Your task to perform on an android device: Open maps Image 0: 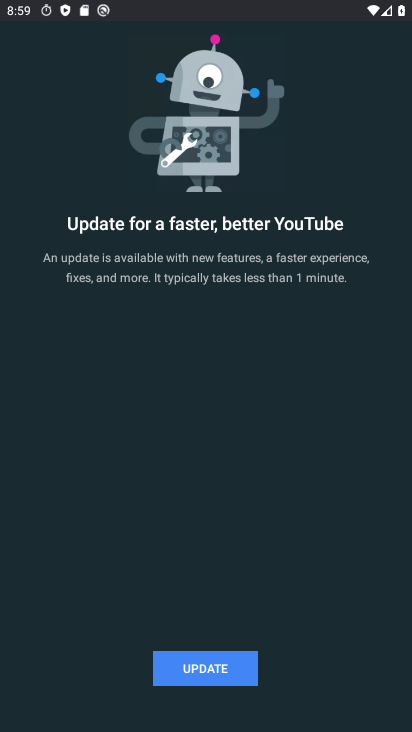
Step 0: press home button
Your task to perform on an android device: Open maps Image 1: 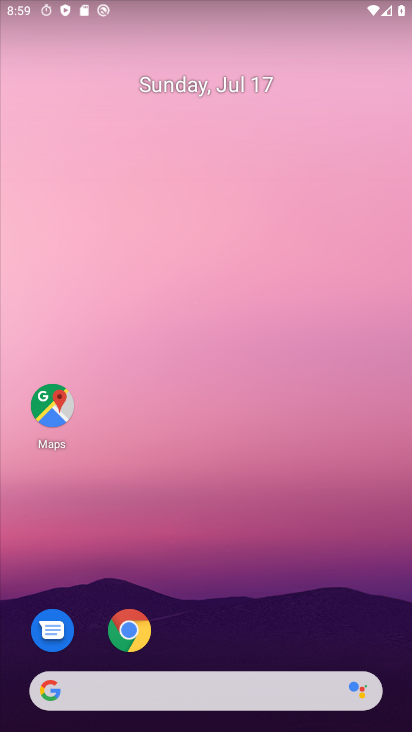
Step 1: click (58, 412)
Your task to perform on an android device: Open maps Image 2: 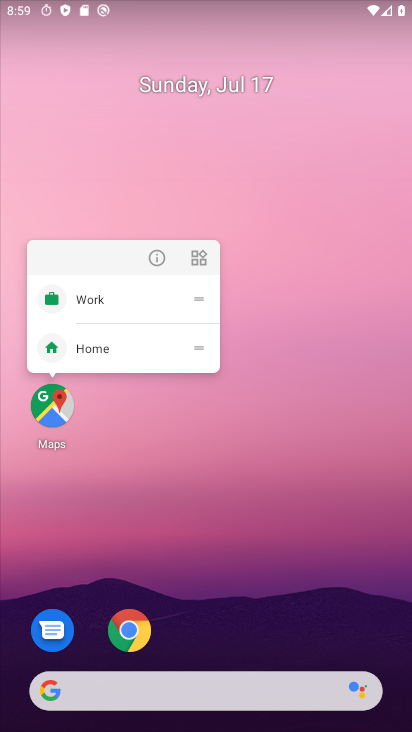
Step 2: click (65, 407)
Your task to perform on an android device: Open maps Image 3: 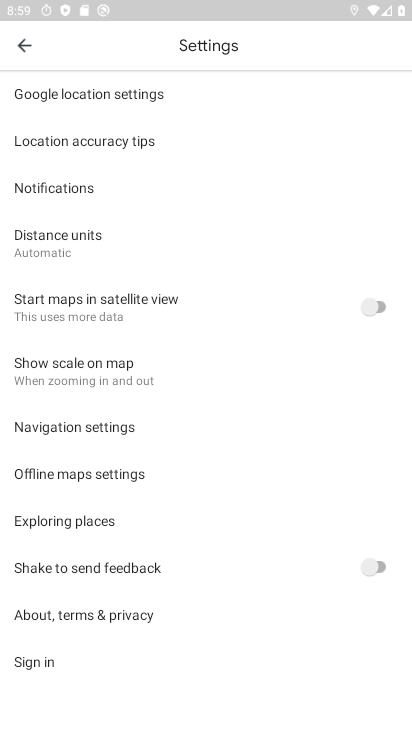
Step 3: click (19, 32)
Your task to perform on an android device: Open maps Image 4: 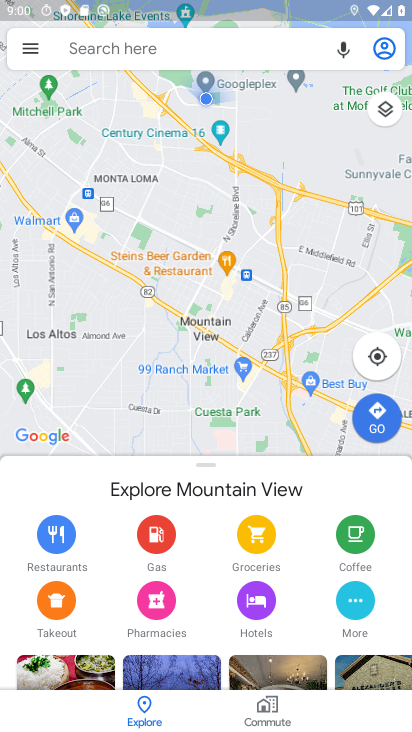
Step 4: task complete